Your task to perform on an android device: toggle data saver in the chrome app Image 0: 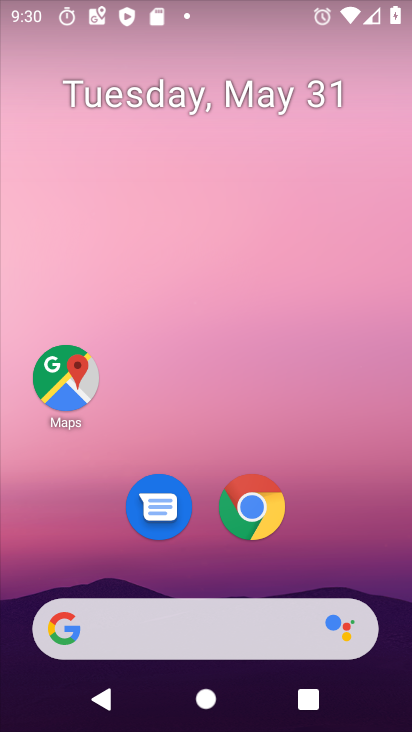
Step 0: click (255, 508)
Your task to perform on an android device: toggle data saver in the chrome app Image 1: 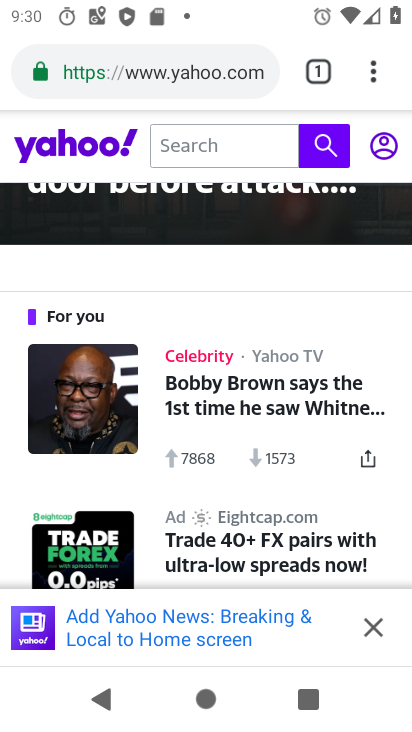
Step 1: click (373, 79)
Your task to perform on an android device: toggle data saver in the chrome app Image 2: 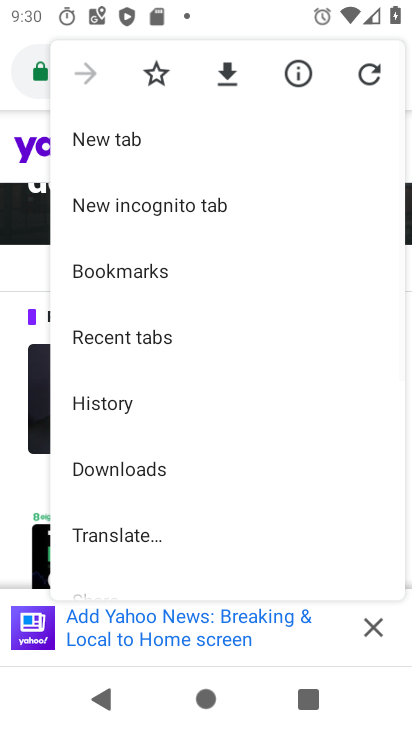
Step 2: drag from (183, 424) to (191, 123)
Your task to perform on an android device: toggle data saver in the chrome app Image 3: 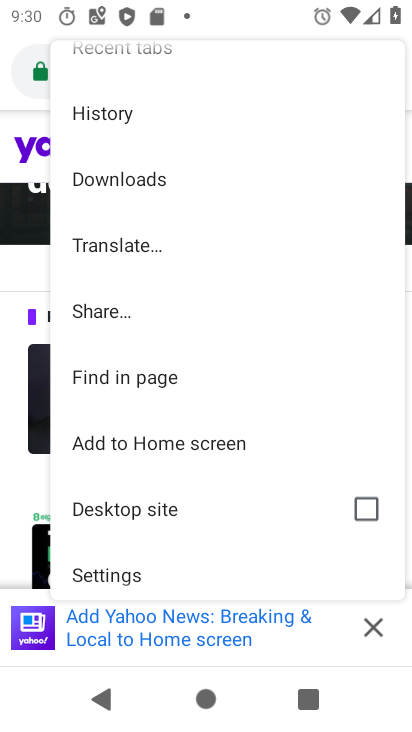
Step 3: drag from (205, 495) to (179, 155)
Your task to perform on an android device: toggle data saver in the chrome app Image 4: 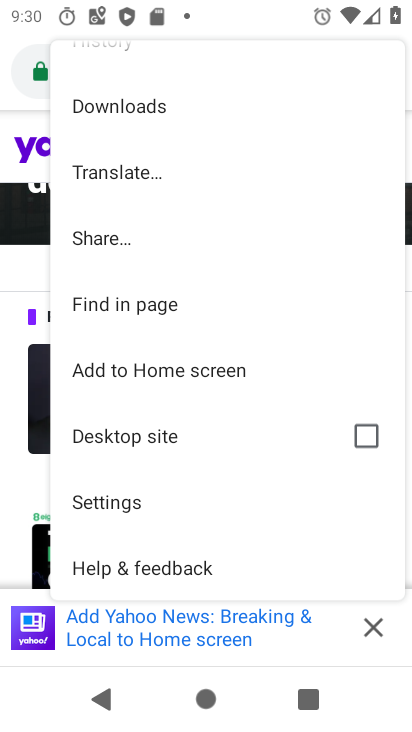
Step 4: click (112, 508)
Your task to perform on an android device: toggle data saver in the chrome app Image 5: 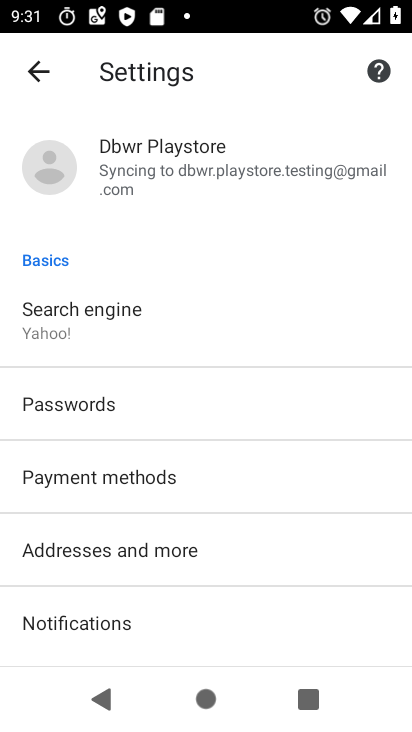
Step 5: drag from (201, 563) to (208, 156)
Your task to perform on an android device: toggle data saver in the chrome app Image 6: 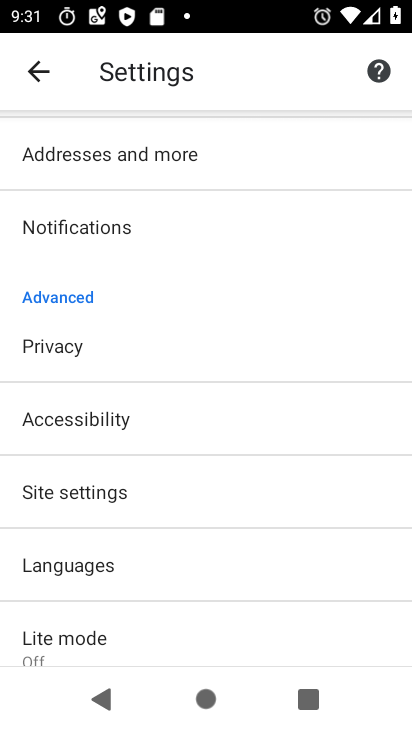
Step 6: drag from (174, 591) to (181, 422)
Your task to perform on an android device: toggle data saver in the chrome app Image 7: 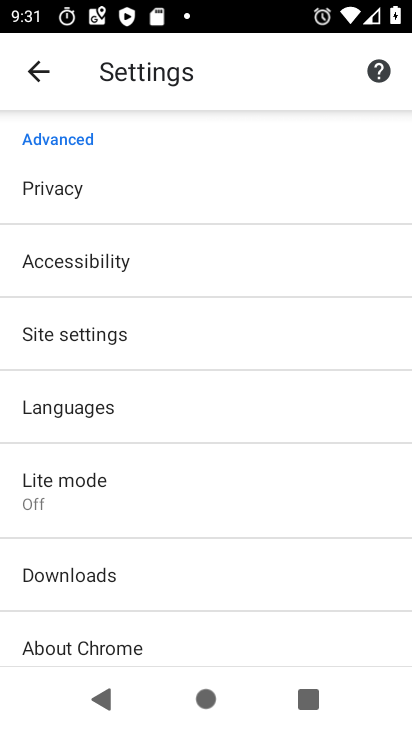
Step 7: click (37, 485)
Your task to perform on an android device: toggle data saver in the chrome app Image 8: 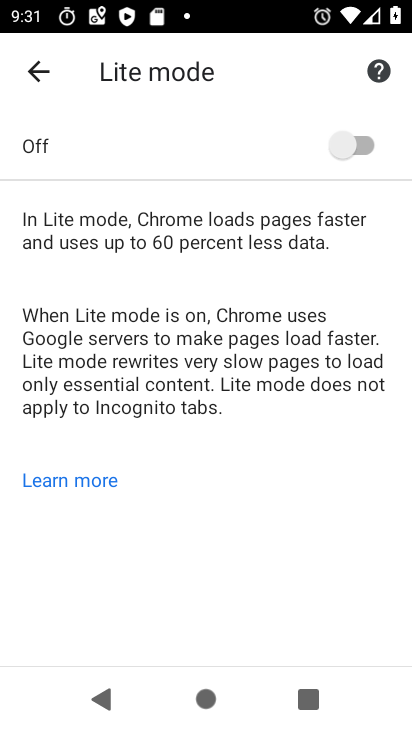
Step 8: click (357, 151)
Your task to perform on an android device: toggle data saver in the chrome app Image 9: 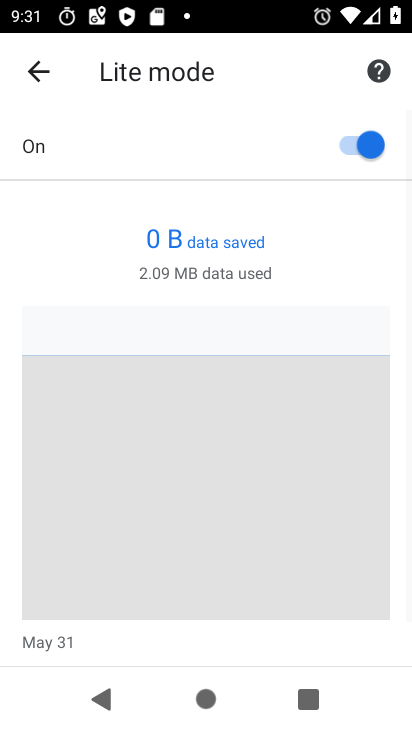
Step 9: task complete